Your task to perform on an android device: Turn on the flashlight Image 0: 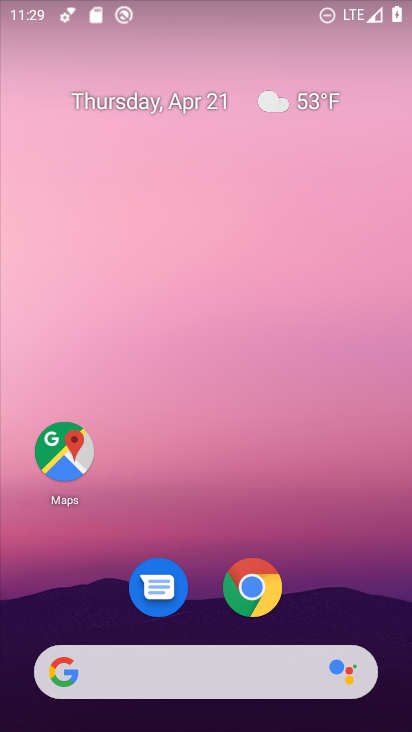
Step 0: drag from (128, 10) to (73, 505)
Your task to perform on an android device: Turn on the flashlight Image 1: 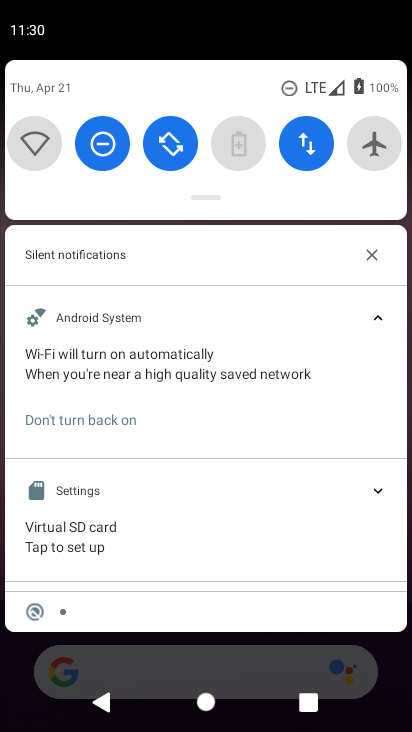
Step 1: task complete